Your task to perform on an android device: Search for Mexican restaurants on Maps Image 0: 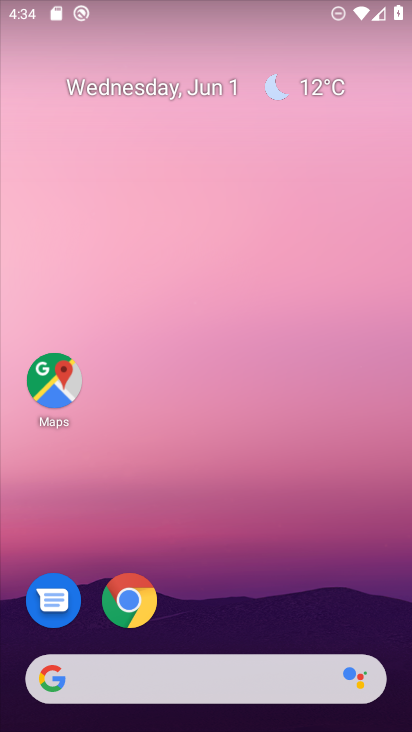
Step 0: click (57, 379)
Your task to perform on an android device: Search for Mexican restaurants on Maps Image 1: 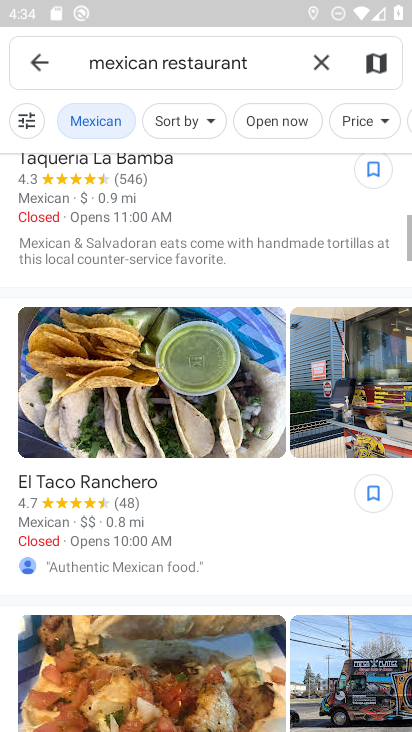
Step 1: task complete